Your task to perform on an android device: Go to Maps Image 0: 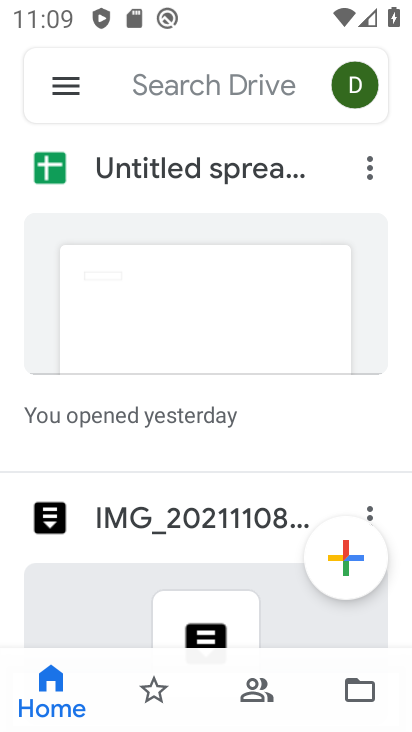
Step 0: press home button
Your task to perform on an android device: Go to Maps Image 1: 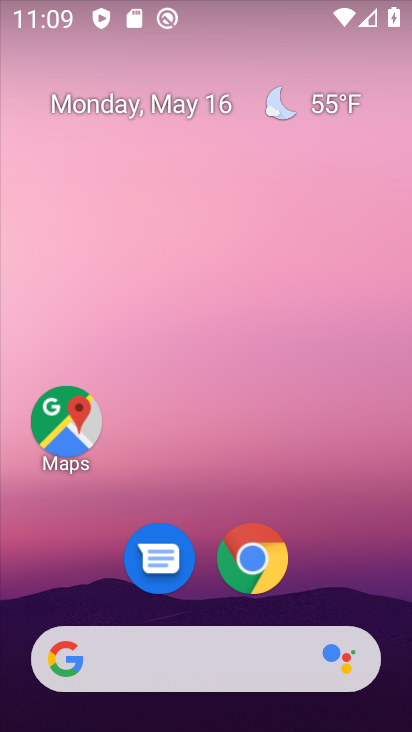
Step 1: click (70, 425)
Your task to perform on an android device: Go to Maps Image 2: 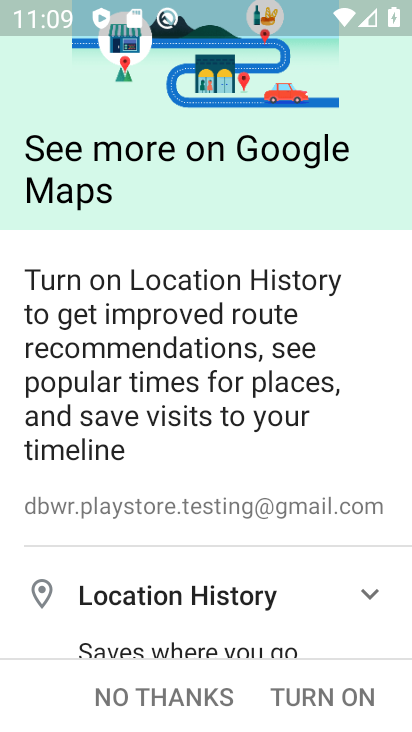
Step 2: click (165, 689)
Your task to perform on an android device: Go to Maps Image 3: 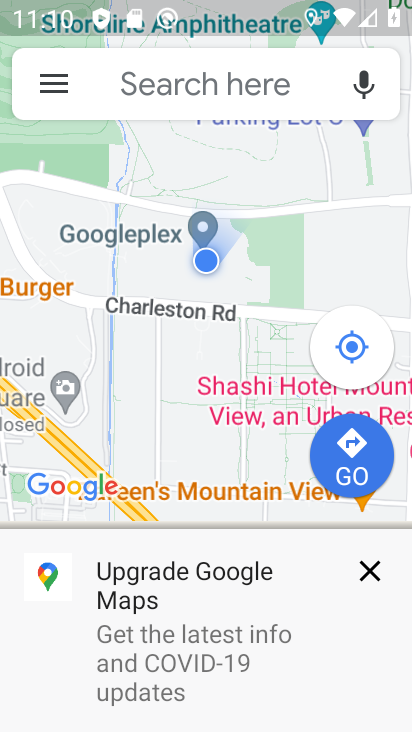
Step 3: task complete